Your task to perform on an android device: open app "NewsBreak: Local News & Alerts" Image 0: 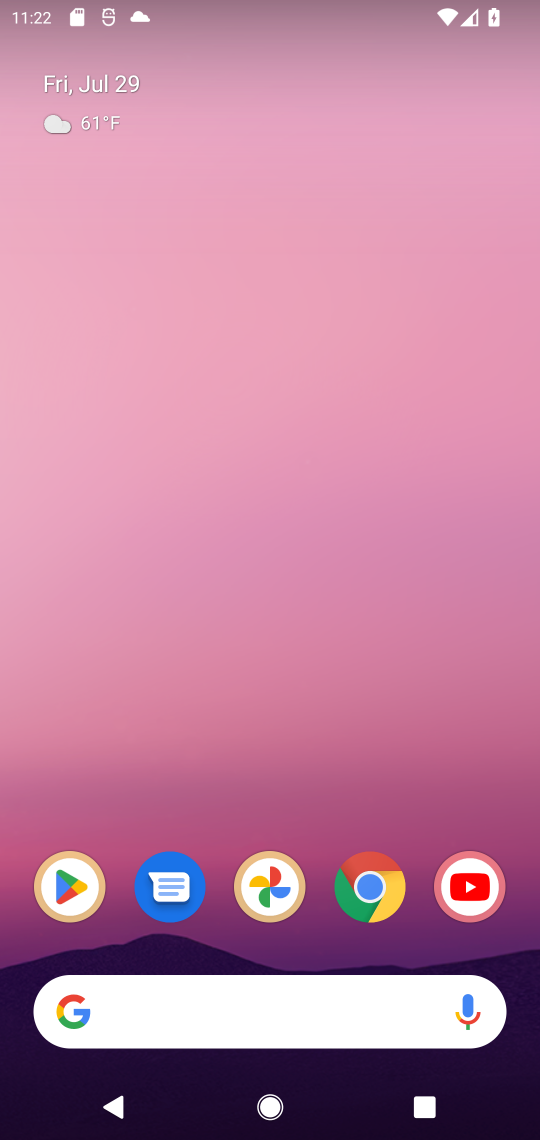
Step 0: drag from (217, 1015) to (167, 311)
Your task to perform on an android device: open app "NewsBreak: Local News & Alerts" Image 1: 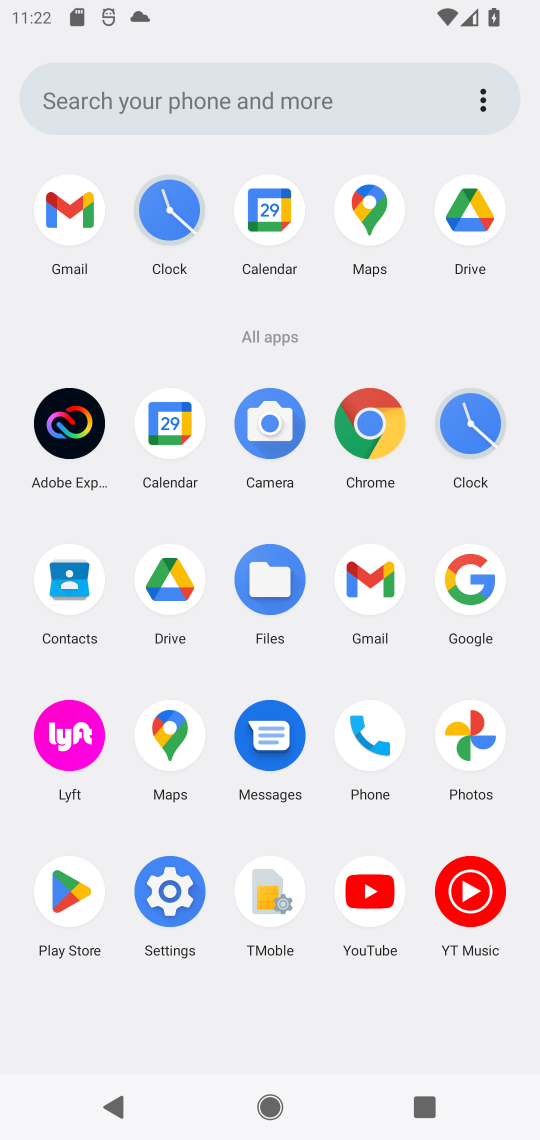
Step 1: click (65, 894)
Your task to perform on an android device: open app "NewsBreak: Local News & Alerts" Image 2: 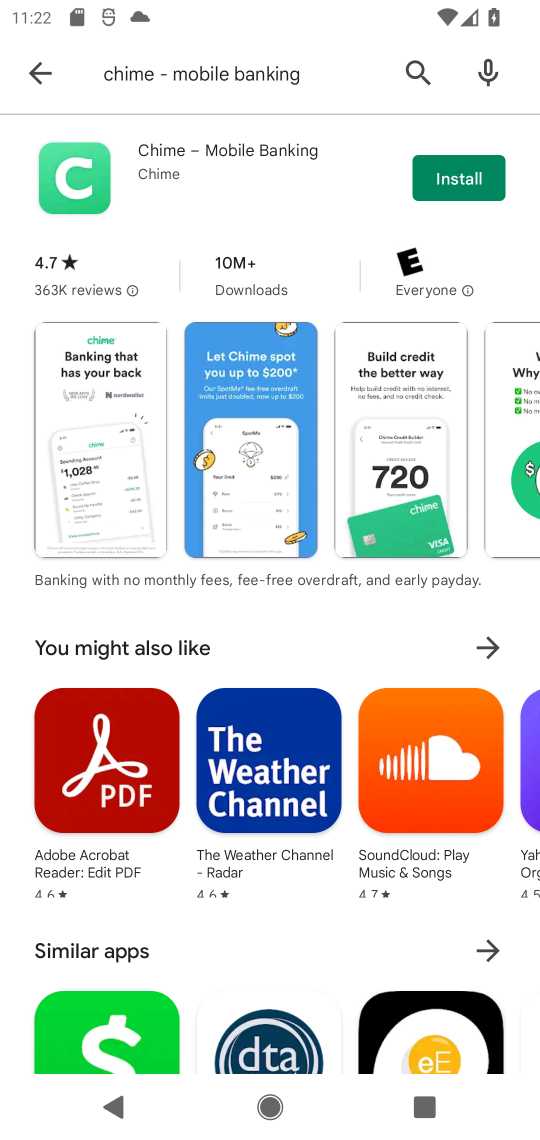
Step 2: press home button
Your task to perform on an android device: open app "NewsBreak: Local News & Alerts" Image 3: 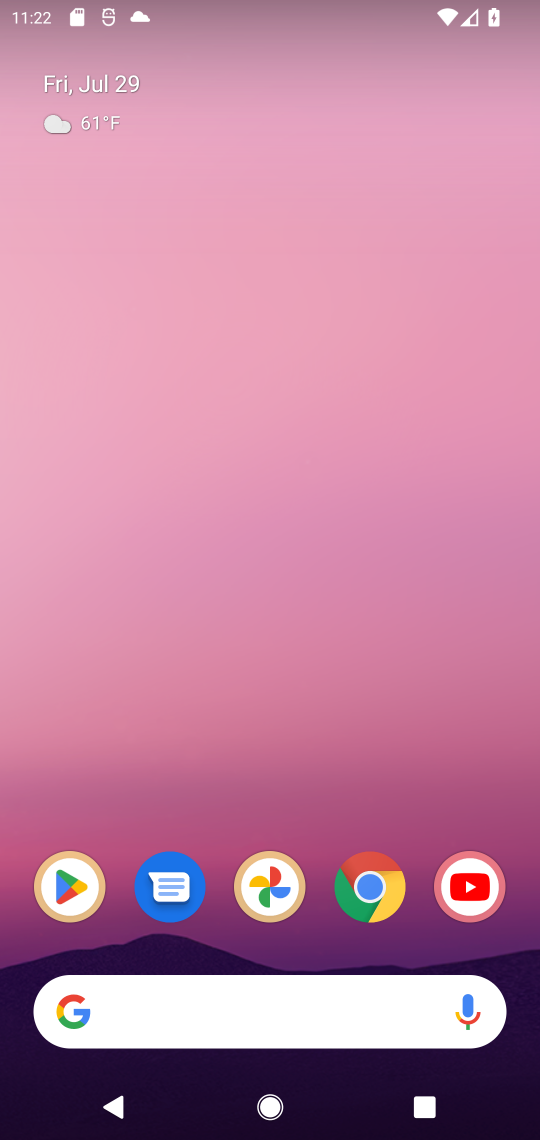
Step 3: drag from (265, 1003) to (326, 272)
Your task to perform on an android device: open app "NewsBreak: Local News & Alerts" Image 4: 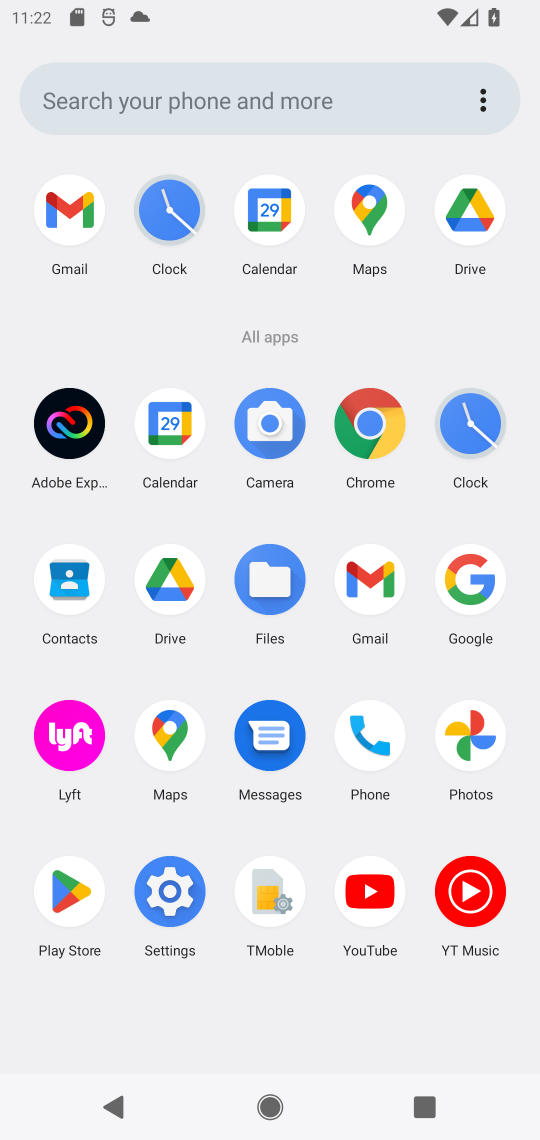
Step 4: click (69, 898)
Your task to perform on an android device: open app "NewsBreak: Local News & Alerts" Image 5: 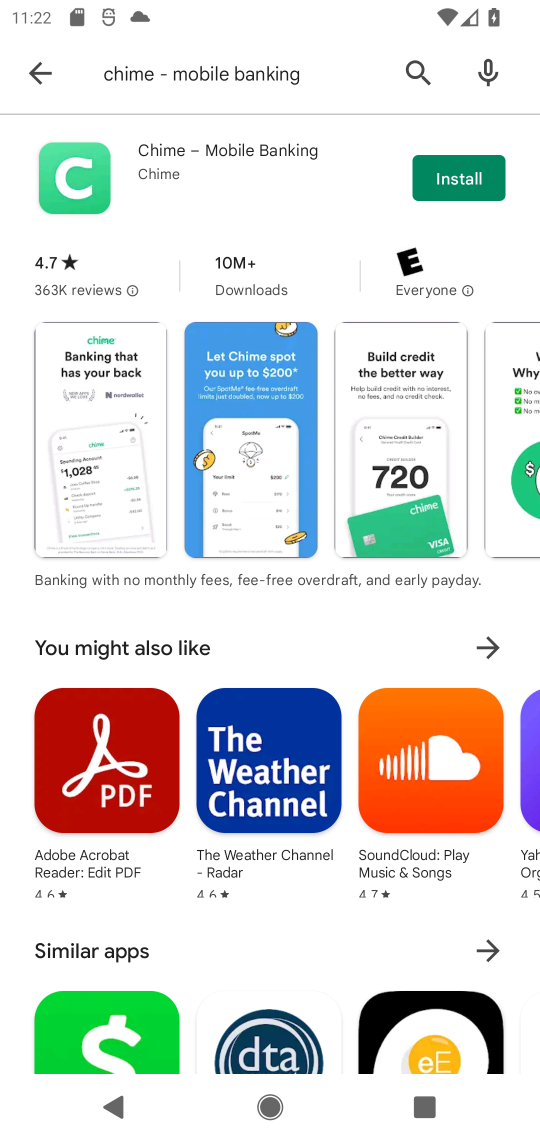
Step 5: click (409, 67)
Your task to perform on an android device: open app "NewsBreak: Local News & Alerts" Image 6: 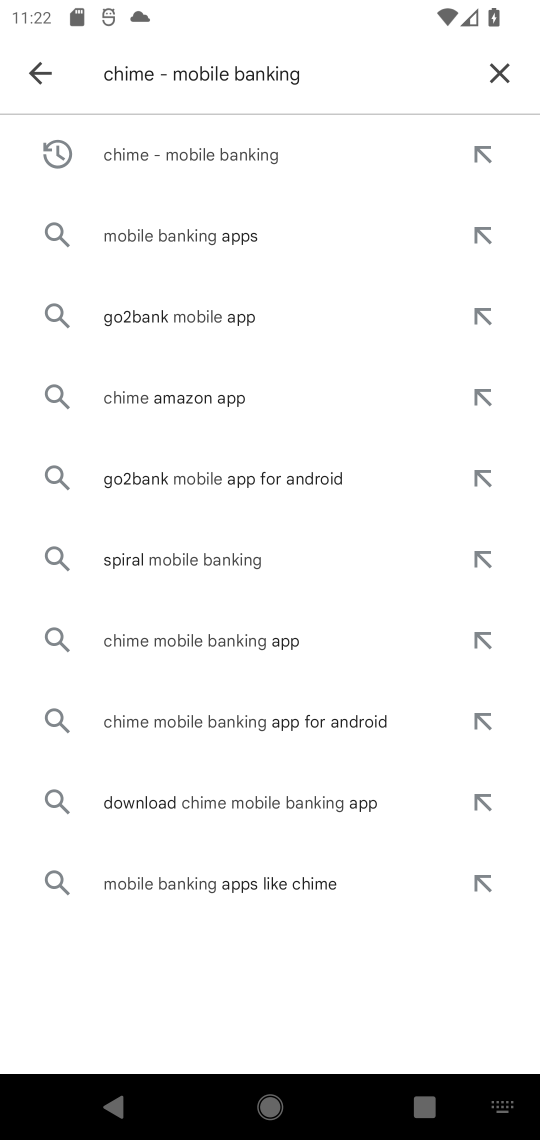
Step 6: click (491, 68)
Your task to perform on an android device: open app "NewsBreak: Local News & Alerts" Image 7: 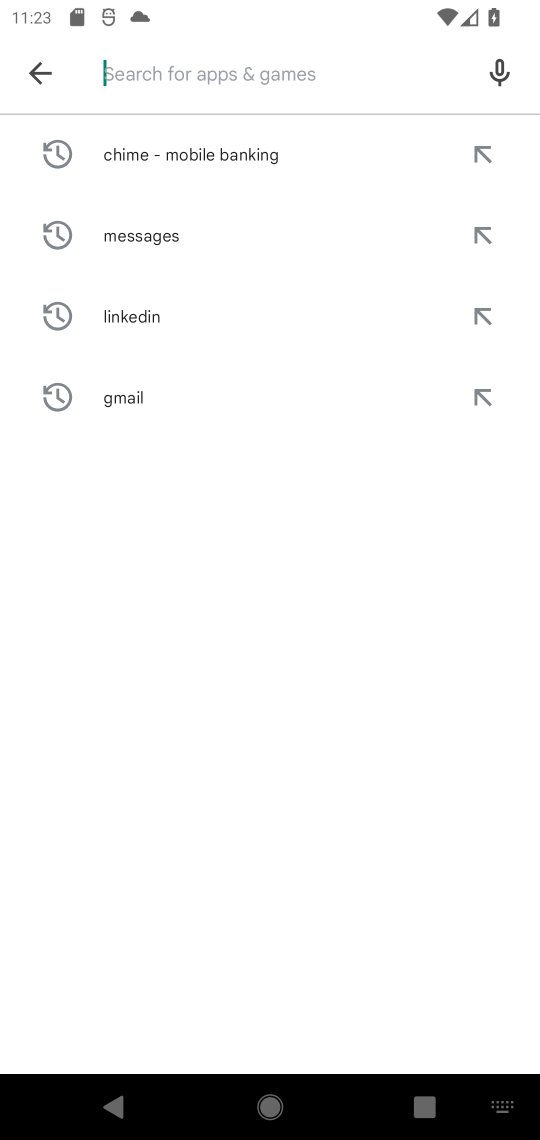
Step 7: click (192, 70)
Your task to perform on an android device: open app "NewsBreak: Local News & Alerts" Image 8: 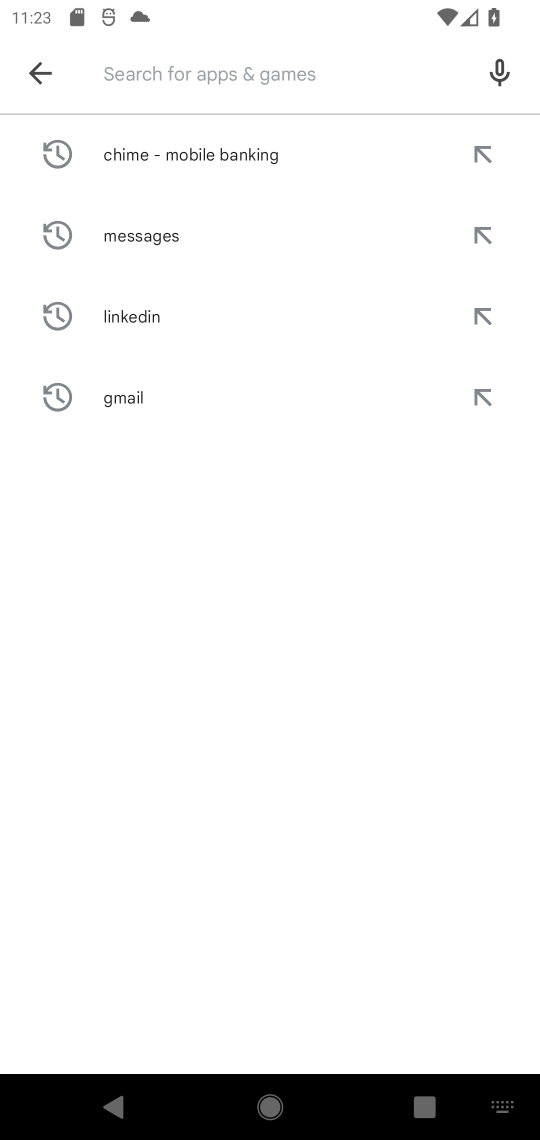
Step 8: type "NewsBreak: Local News & Alerts"
Your task to perform on an android device: open app "NewsBreak: Local News & Alerts" Image 9: 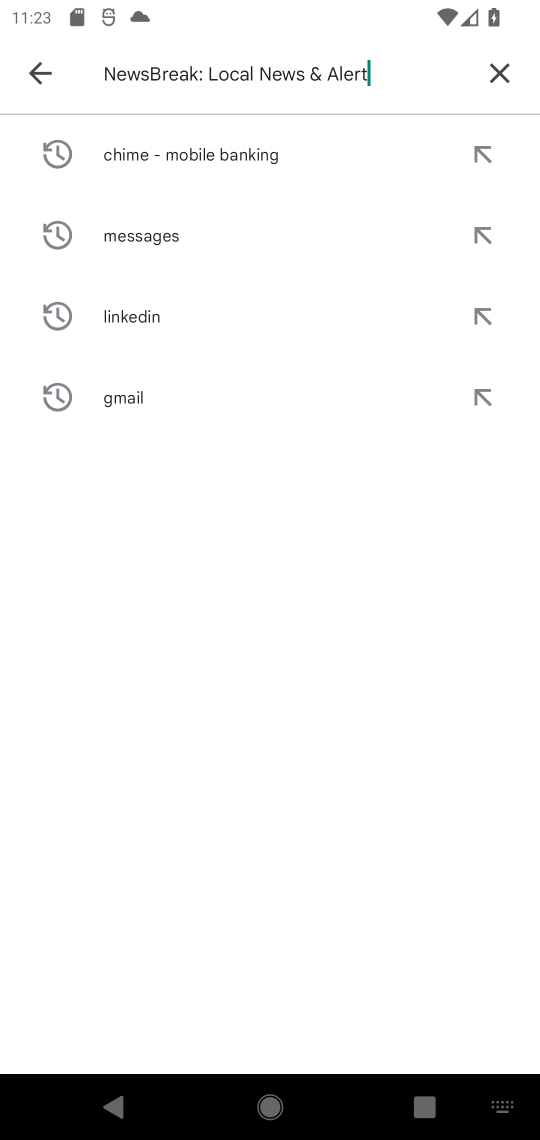
Step 9: type ""
Your task to perform on an android device: open app "NewsBreak: Local News & Alerts" Image 10: 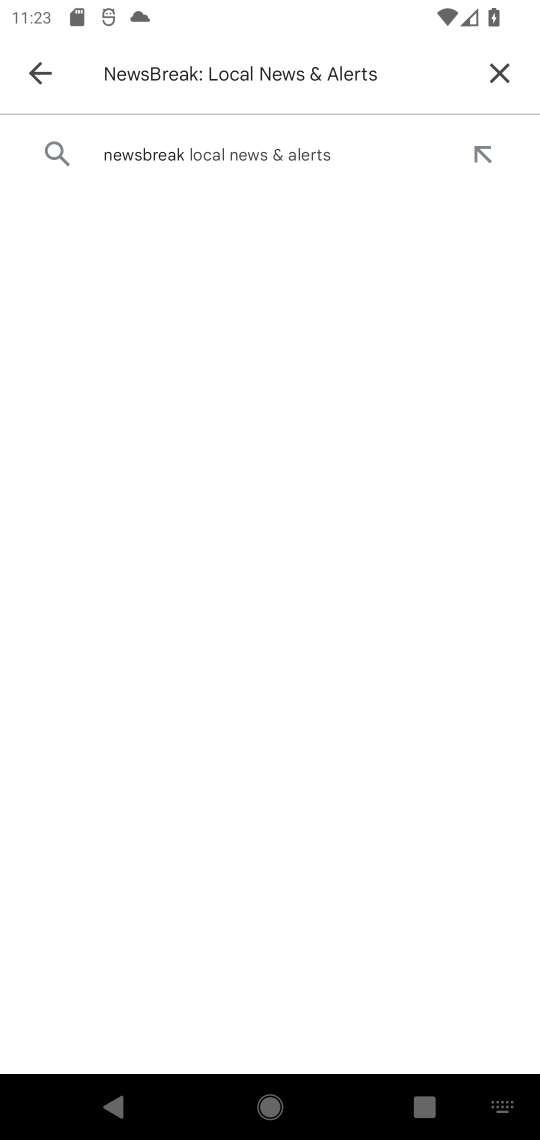
Step 10: click (217, 155)
Your task to perform on an android device: open app "NewsBreak: Local News & Alerts" Image 11: 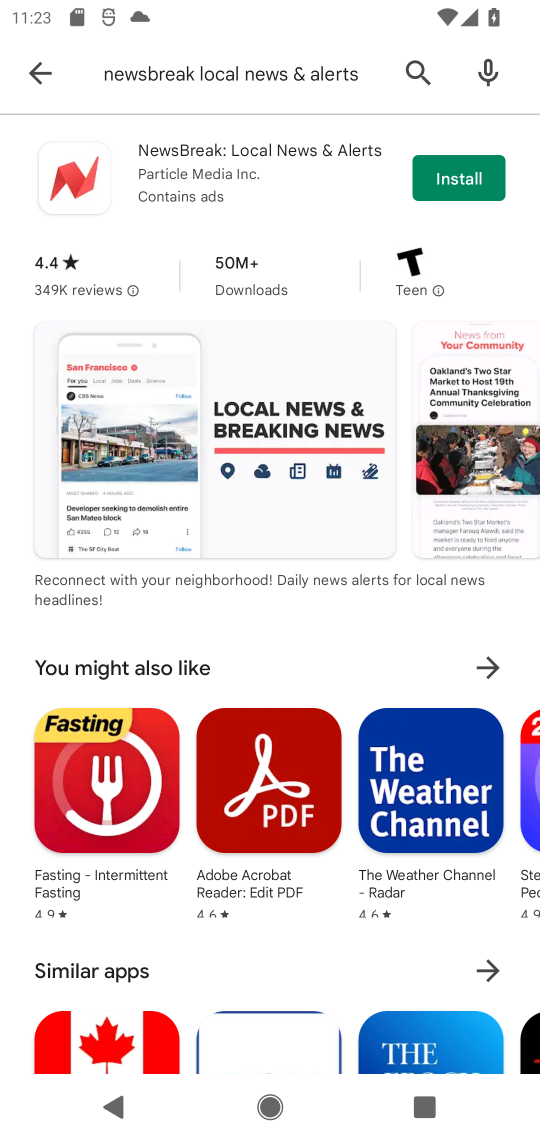
Step 11: task complete